Your task to perform on an android device: Go to wifi settings Image 0: 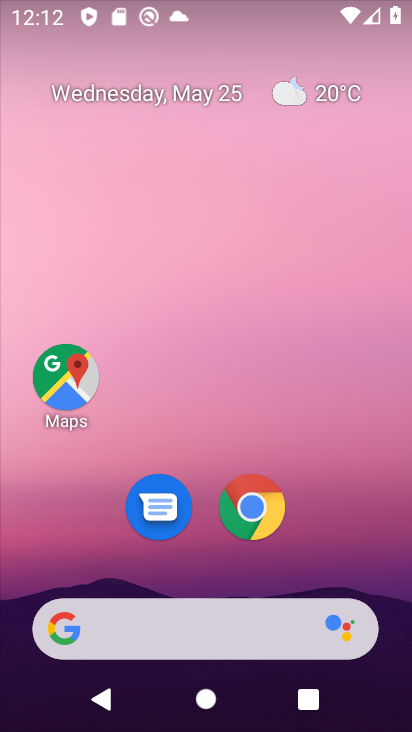
Step 0: drag from (339, 555) to (303, 177)
Your task to perform on an android device: Go to wifi settings Image 1: 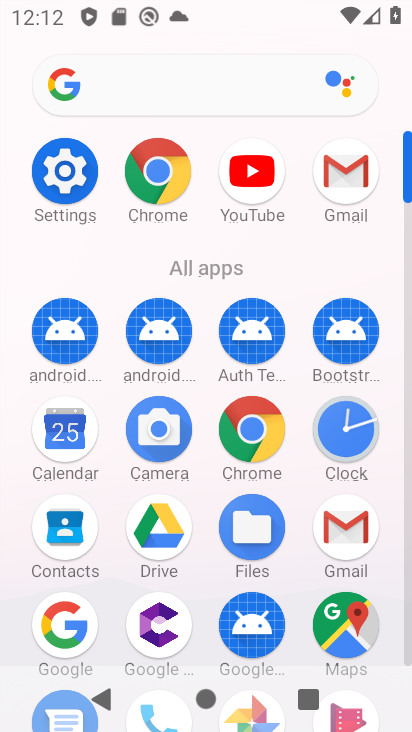
Step 1: click (76, 187)
Your task to perform on an android device: Go to wifi settings Image 2: 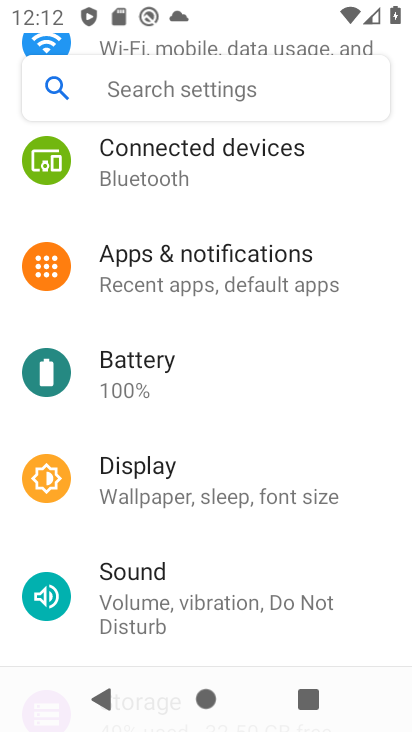
Step 2: drag from (235, 213) to (280, 544)
Your task to perform on an android device: Go to wifi settings Image 3: 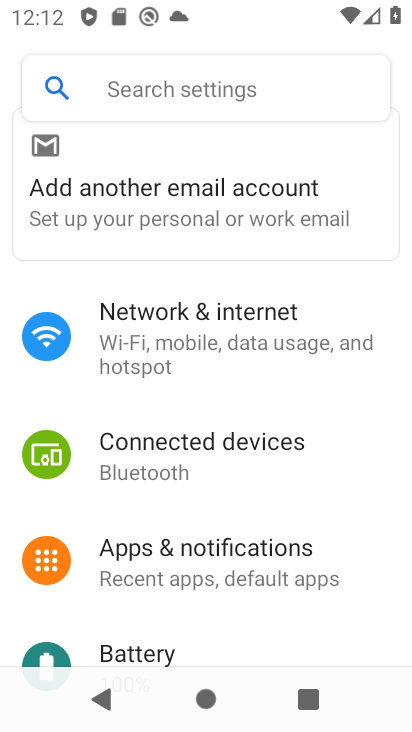
Step 3: click (273, 347)
Your task to perform on an android device: Go to wifi settings Image 4: 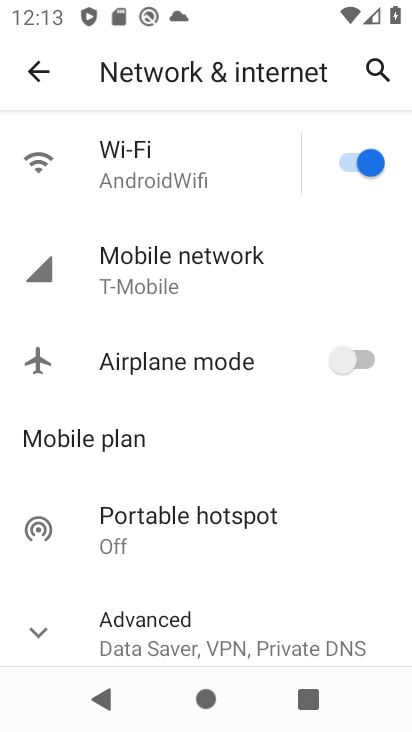
Step 4: click (184, 187)
Your task to perform on an android device: Go to wifi settings Image 5: 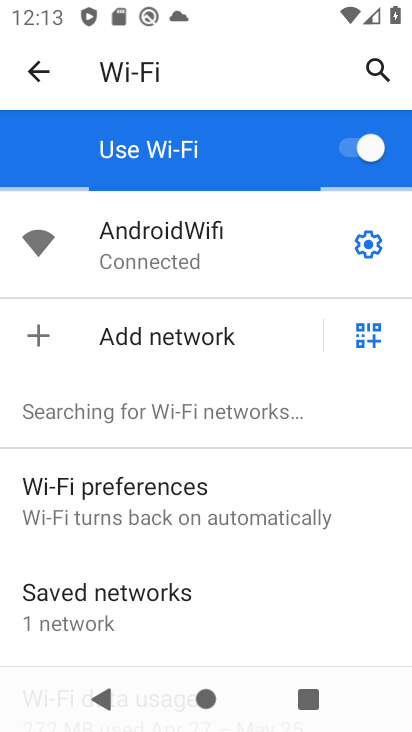
Step 5: task complete